Your task to perform on an android device: Open Google Chrome and open the bookmarks view Image 0: 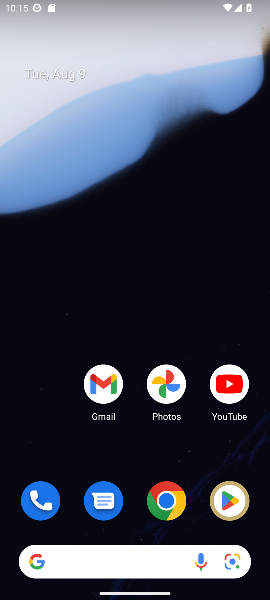
Step 0: click (168, 505)
Your task to perform on an android device: Open Google Chrome and open the bookmarks view Image 1: 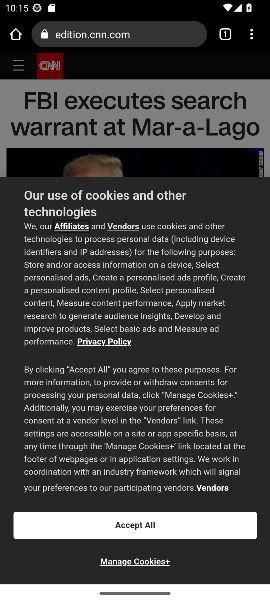
Step 1: click (251, 36)
Your task to perform on an android device: Open Google Chrome and open the bookmarks view Image 2: 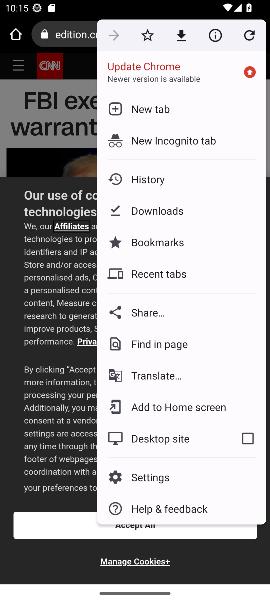
Step 2: click (143, 244)
Your task to perform on an android device: Open Google Chrome and open the bookmarks view Image 3: 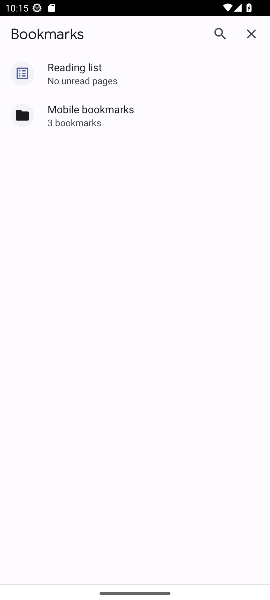
Step 3: task complete